Your task to perform on an android device: check google app version Image 0: 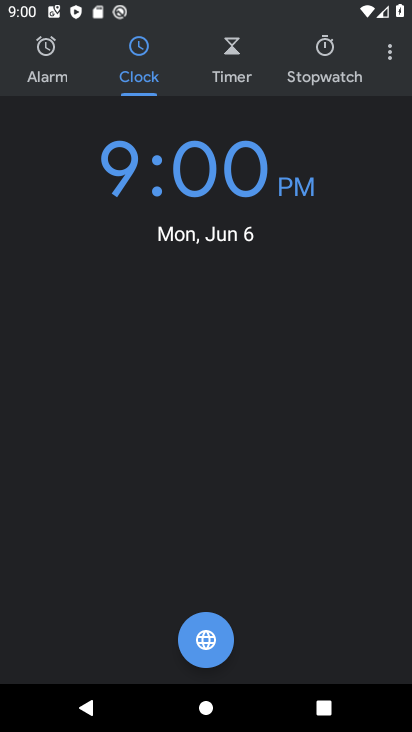
Step 0: press home button
Your task to perform on an android device: check google app version Image 1: 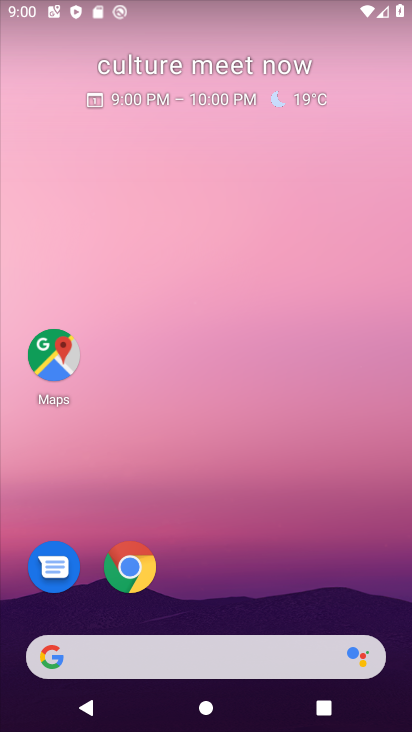
Step 1: click (153, 656)
Your task to perform on an android device: check google app version Image 2: 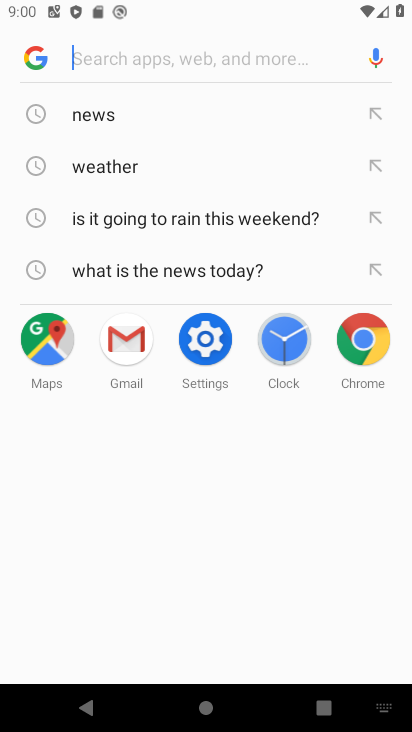
Step 2: click (30, 52)
Your task to perform on an android device: check google app version Image 3: 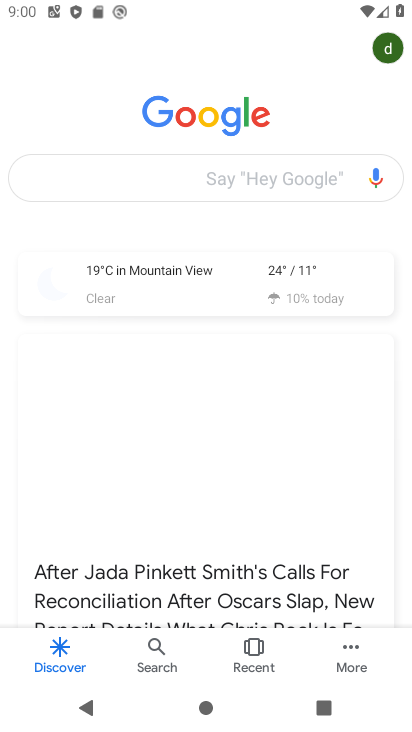
Step 3: click (351, 650)
Your task to perform on an android device: check google app version Image 4: 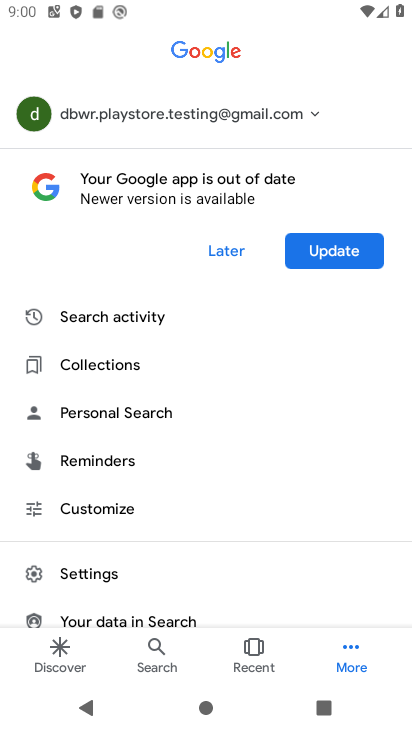
Step 4: click (100, 556)
Your task to perform on an android device: check google app version Image 5: 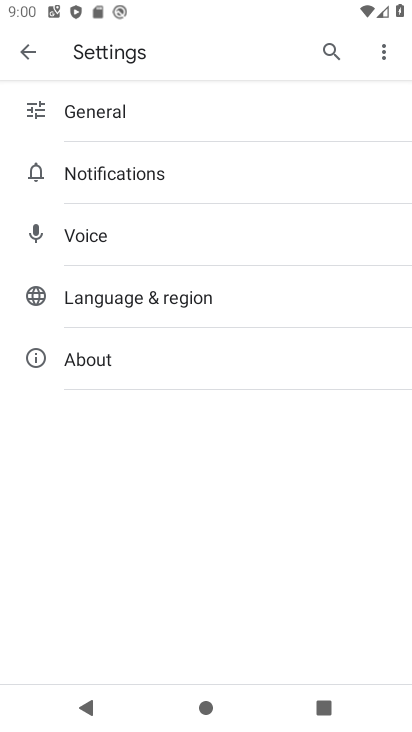
Step 5: click (118, 373)
Your task to perform on an android device: check google app version Image 6: 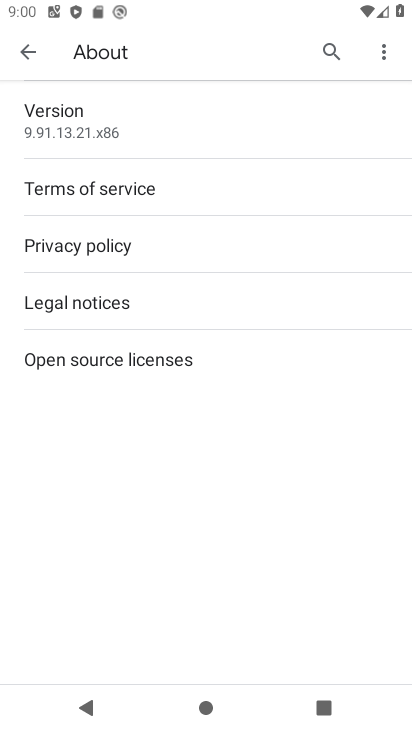
Step 6: task complete